Your task to perform on an android device: What's on Reddit today Image 0: 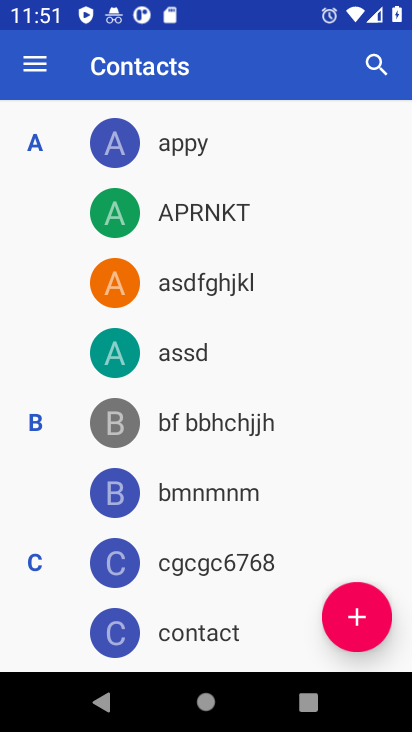
Step 0: press home button
Your task to perform on an android device: What's on Reddit today Image 1: 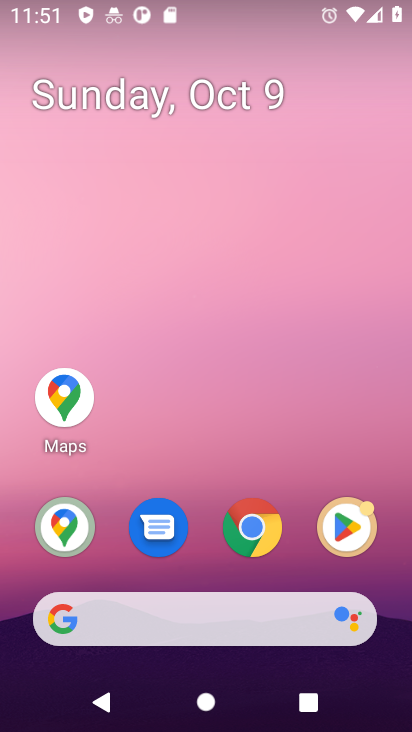
Step 1: click (356, 507)
Your task to perform on an android device: What's on Reddit today Image 2: 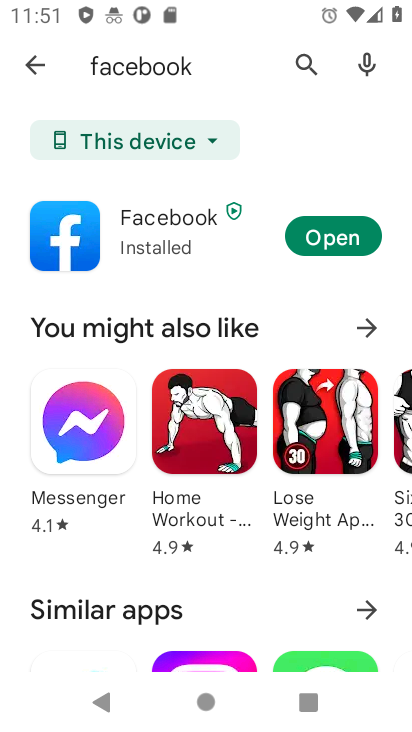
Step 2: click (137, 73)
Your task to perform on an android device: What's on Reddit today Image 3: 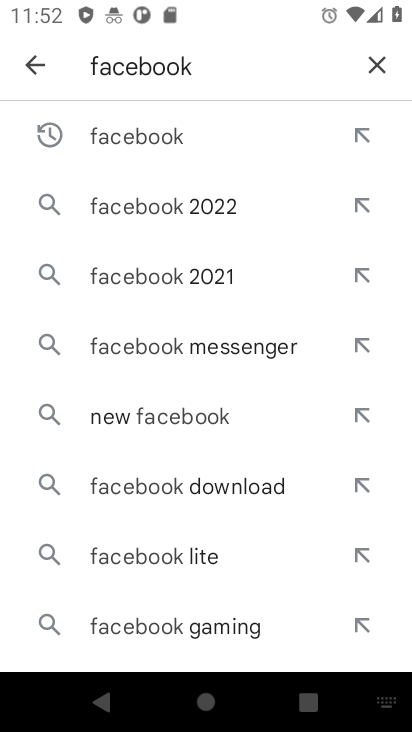
Step 3: click (380, 65)
Your task to perform on an android device: What's on Reddit today Image 4: 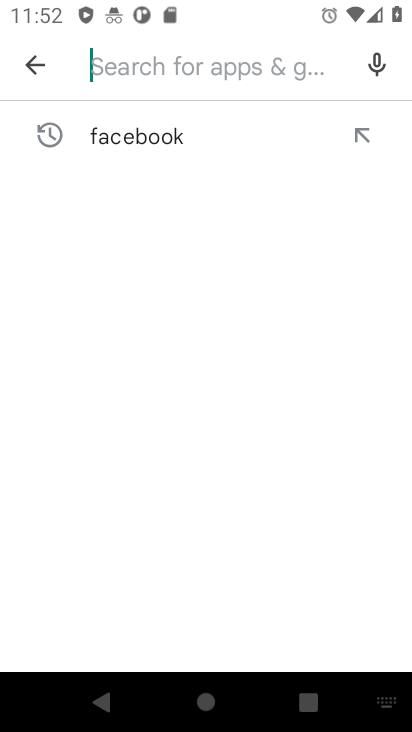
Step 4: type "reddit"
Your task to perform on an android device: What's on Reddit today Image 5: 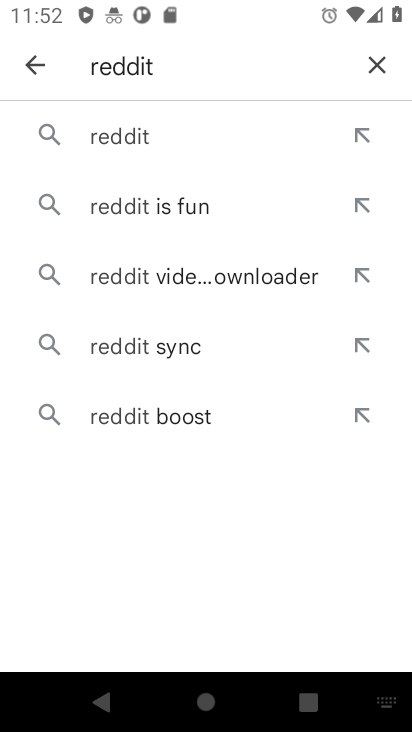
Step 5: click (180, 141)
Your task to perform on an android device: What's on Reddit today Image 6: 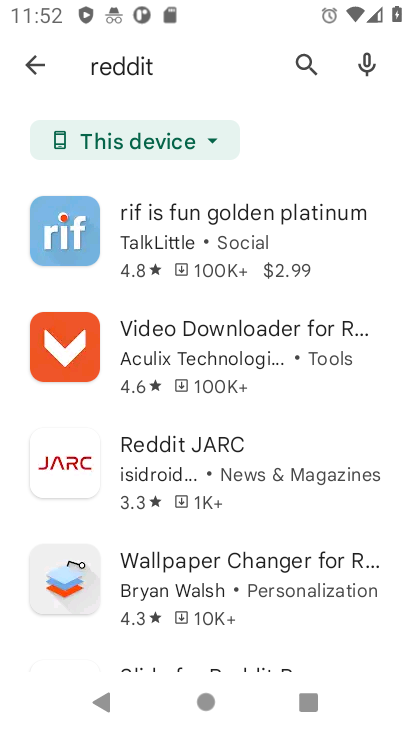
Step 6: task complete